Your task to perform on an android device: Go to internet settings Image 0: 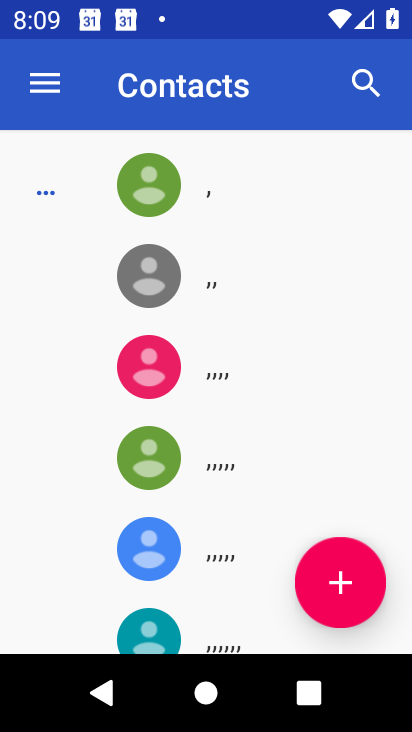
Step 0: press home button
Your task to perform on an android device: Go to internet settings Image 1: 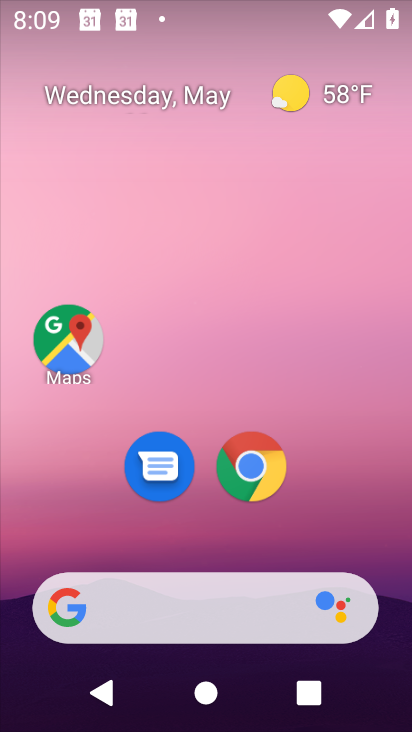
Step 1: drag from (212, 544) to (259, 79)
Your task to perform on an android device: Go to internet settings Image 2: 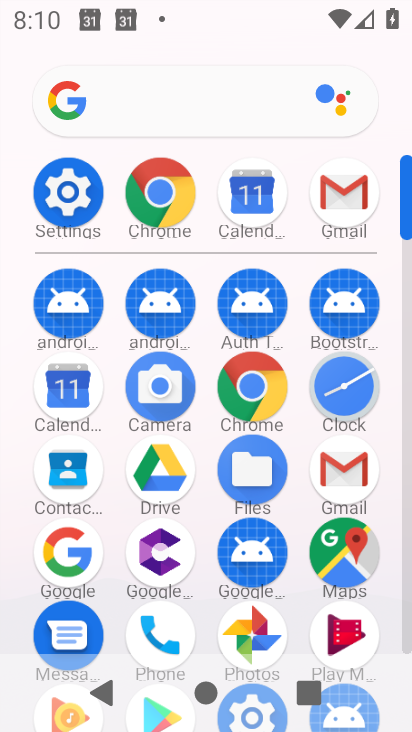
Step 2: click (60, 187)
Your task to perform on an android device: Go to internet settings Image 3: 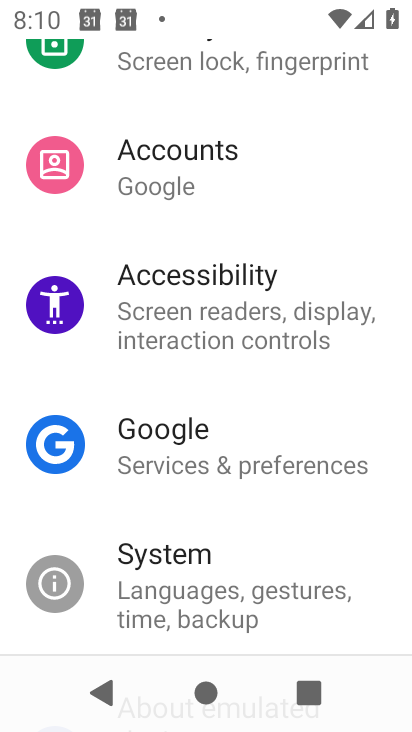
Step 3: drag from (165, 204) to (202, 729)
Your task to perform on an android device: Go to internet settings Image 4: 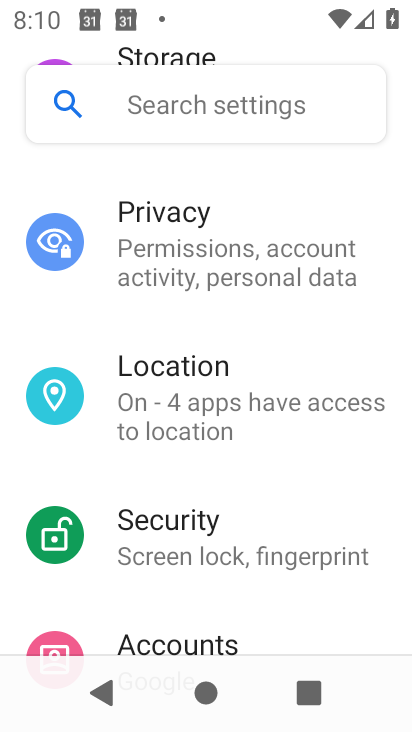
Step 4: drag from (163, 166) to (167, 729)
Your task to perform on an android device: Go to internet settings Image 5: 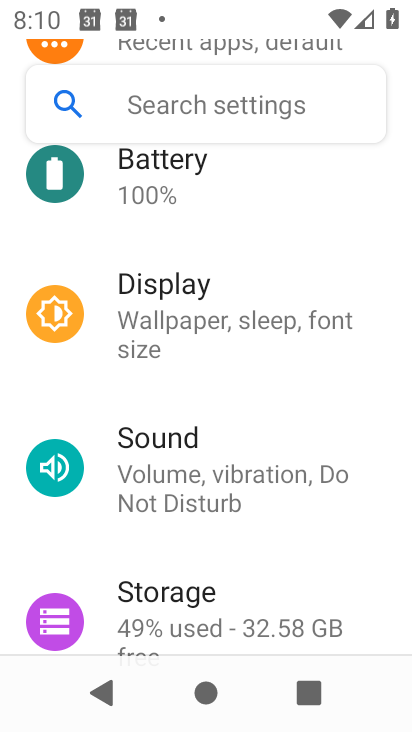
Step 5: drag from (175, 301) to (202, 712)
Your task to perform on an android device: Go to internet settings Image 6: 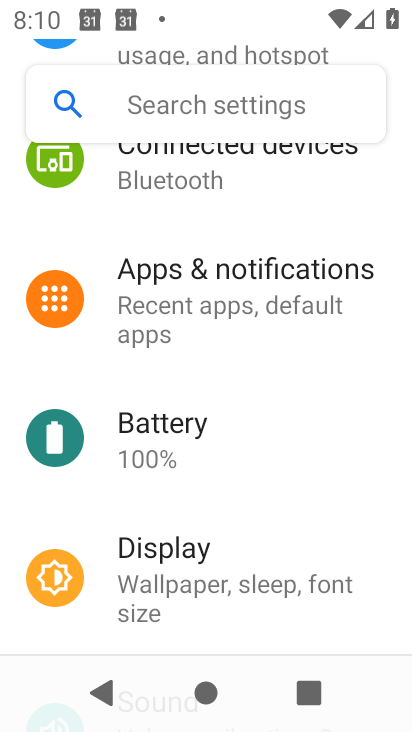
Step 6: drag from (169, 180) to (207, 728)
Your task to perform on an android device: Go to internet settings Image 7: 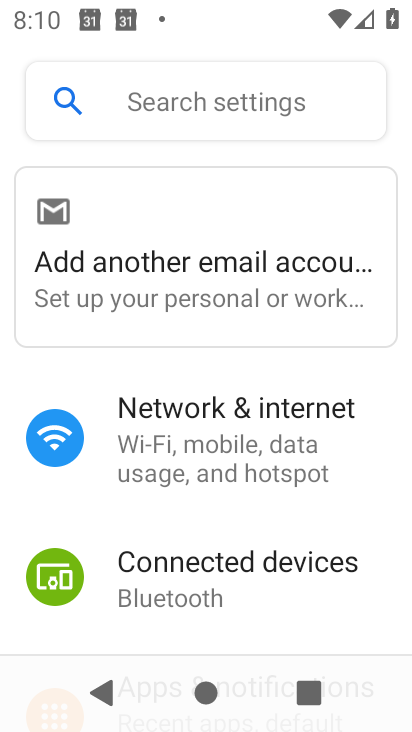
Step 7: click (193, 455)
Your task to perform on an android device: Go to internet settings Image 8: 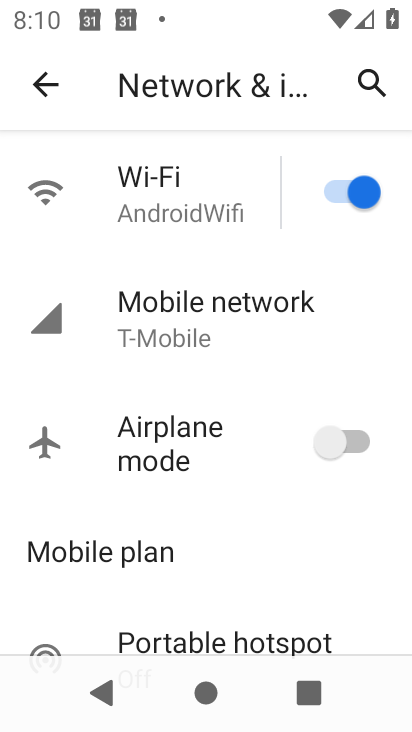
Step 8: drag from (221, 552) to (224, 136)
Your task to perform on an android device: Go to internet settings Image 9: 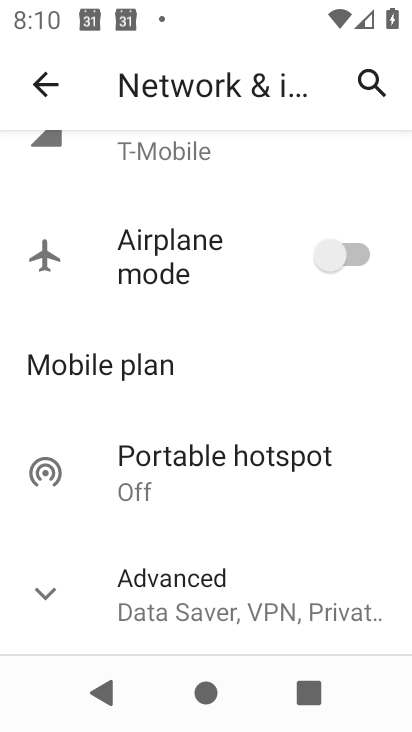
Step 9: click (40, 592)
Your task to perform on an android device: Go to internet settings Image 10: 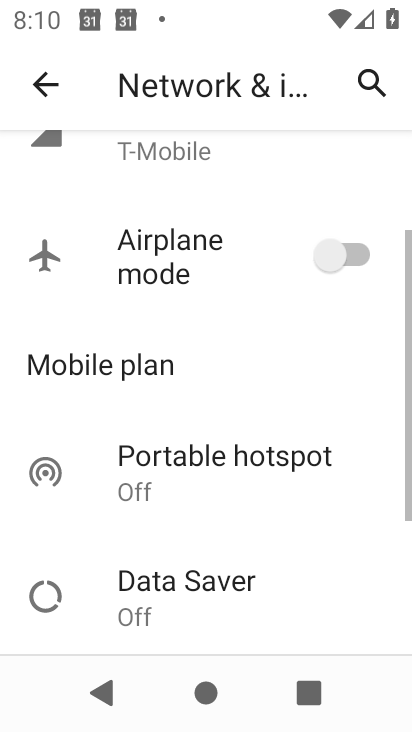
Step 10: task complete